Your task to perform on an android device: Go to Maps Image 0: 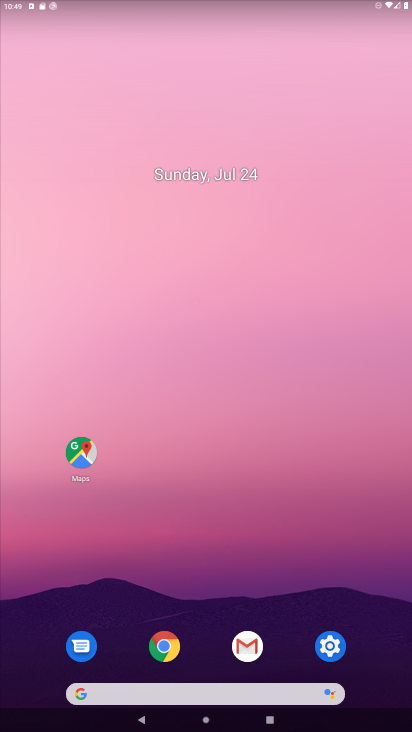
Step 0: click (93, 459)
Your task to perform on an android device: Go to Maps Image 1: 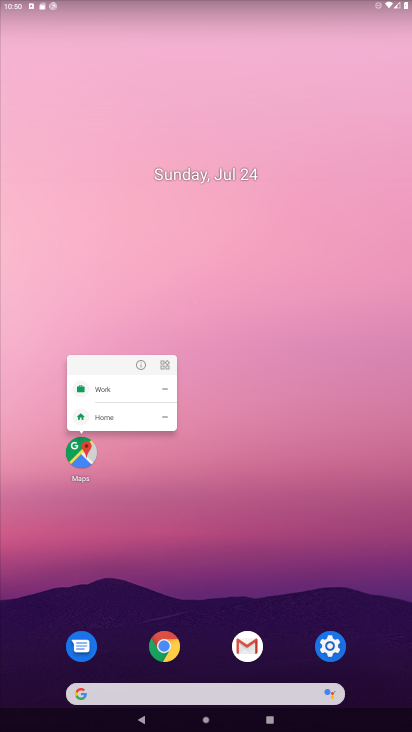
Step 1: click (91, 461)
Your task to perform on an android device: Go to Maps Image 2: 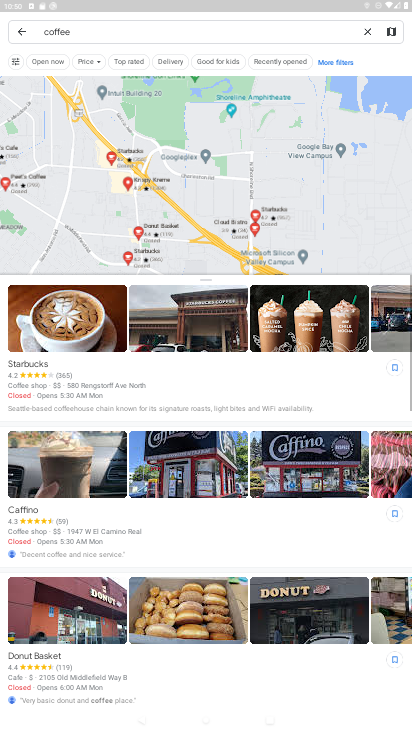
Step 2: click (19, 37)
Your task to perform on an android device: Go to Maps Image 3: 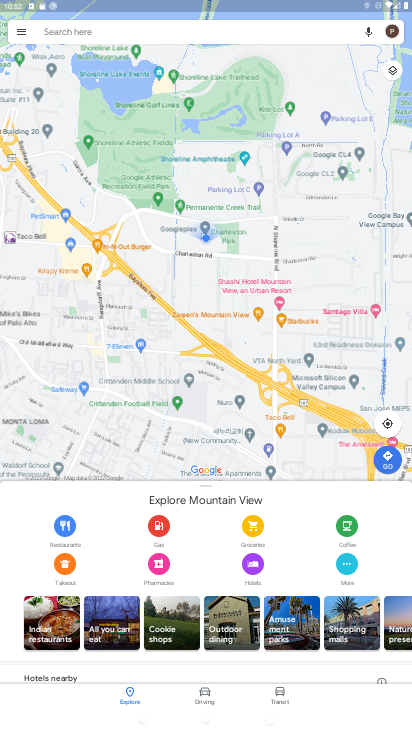
Step 3: task complete